Your task to perform on an android device: When is my next appointment? Image 0: 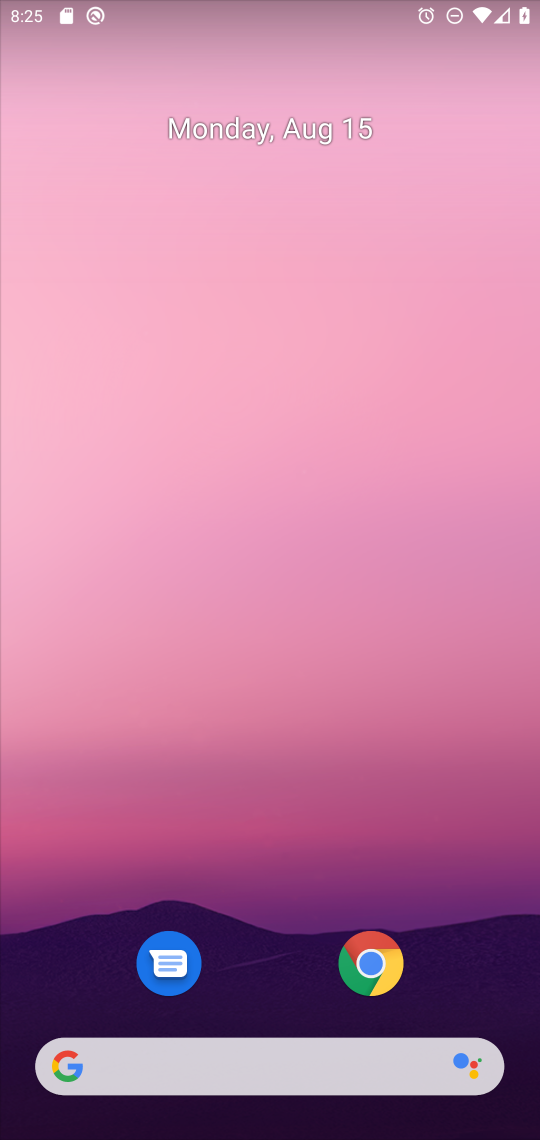
Step 0: click (279, 141)
Your task to perform on an android device: When is my next appointment? Image 1: 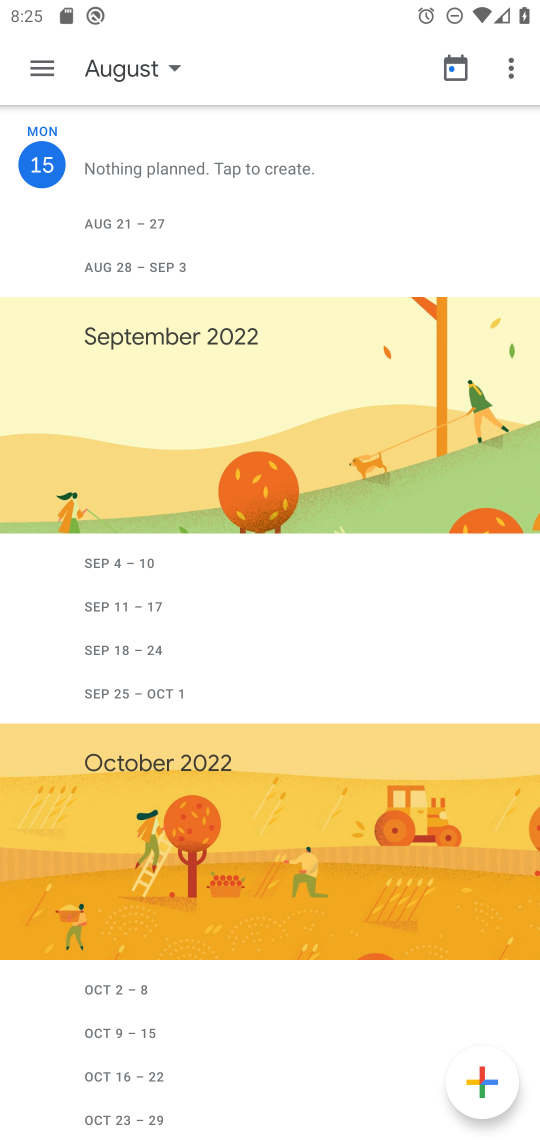
Step 1: task complete